Your task to perform on an android device: stop showing notifications on the lock screen Image 0: 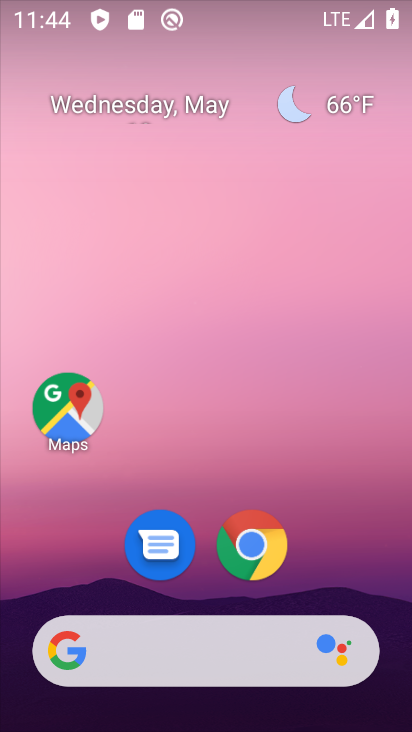
Step 0: drag from (279, 723) to (326, 111)
Your task to perform on an android device: stop showing notifications on the lock screen Image 1: 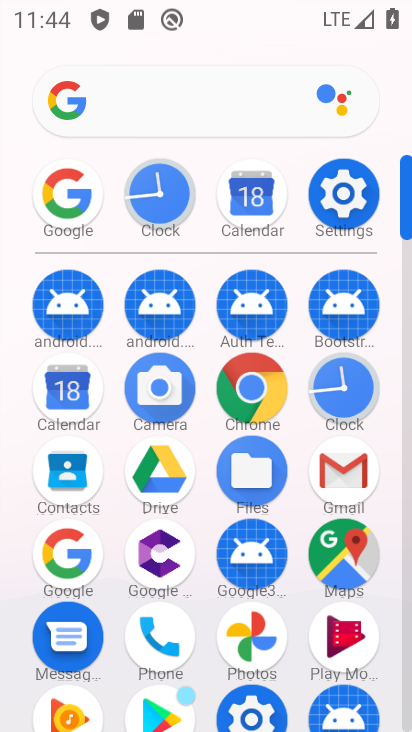
Step 1: click (346, 201)
Your task to perform on an android device: stop showing notifications on the lock screen Image 2: 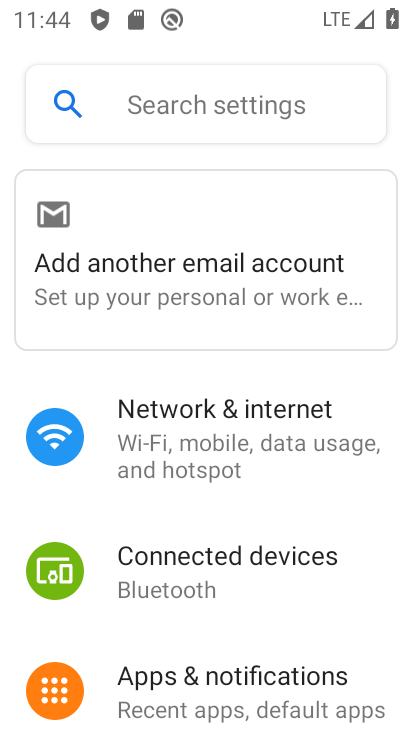
Step 2: click (278, 701)
Your task to perform on an android device: stop showing notifications on the lock screen Image 3: 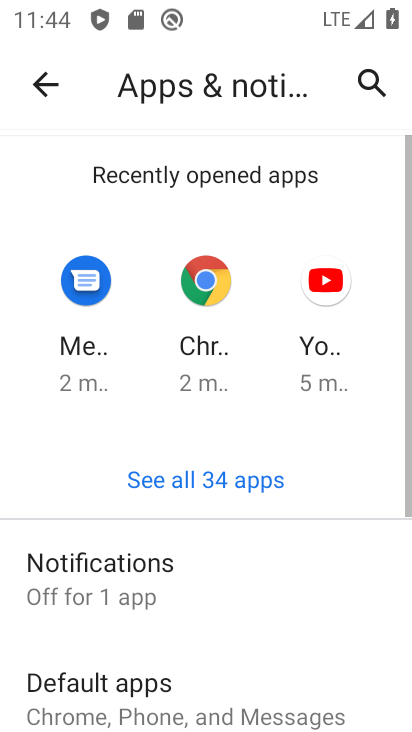
Step 3: click (146, 563)
Your task to perform on an android device: stop showing notifications on the lock screen Image 4: 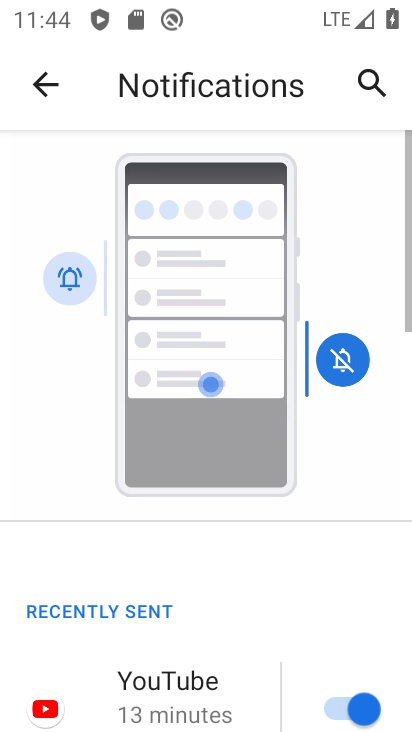
Step 4: drag from (294, 632) to (211, 133)
Your task to perform on an android device: stop showing notifications on the lock screen Image 5: 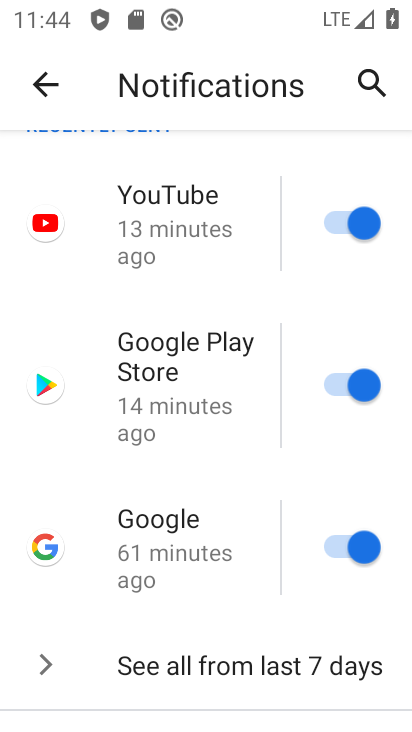
Step 5: drag from (251, 680) to (176, 294)
Your task to perform on an android device: stop showing notifications on the lock screen Image 6: 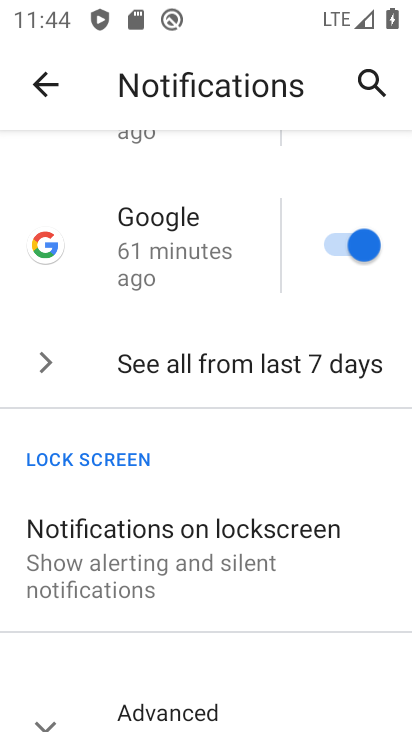
Step 6: click (208, 567)
Your task to perform on an android device: stop showing notifications on the lock screen Image 7: 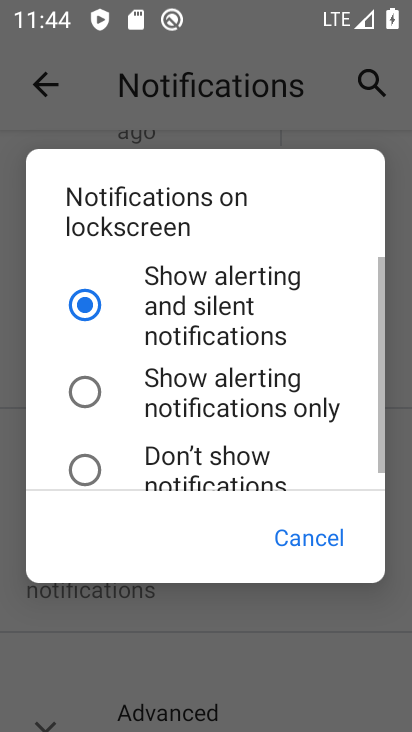
Step 7: click (216, 462)
Your task to perform on an android device: stop showing notifications on the lock screen Image 8: 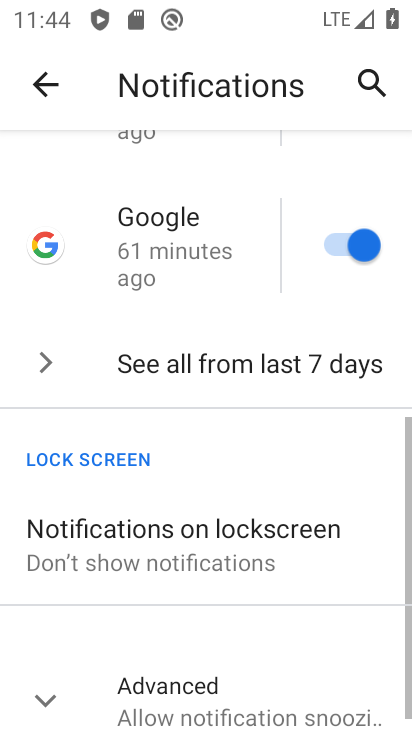
Step 8: task complete